Your task to perform on an android device: Empty the shopping cart on bestbuy.com. Add "duracell triple a" to the cart on bestbuy.com Image 0: 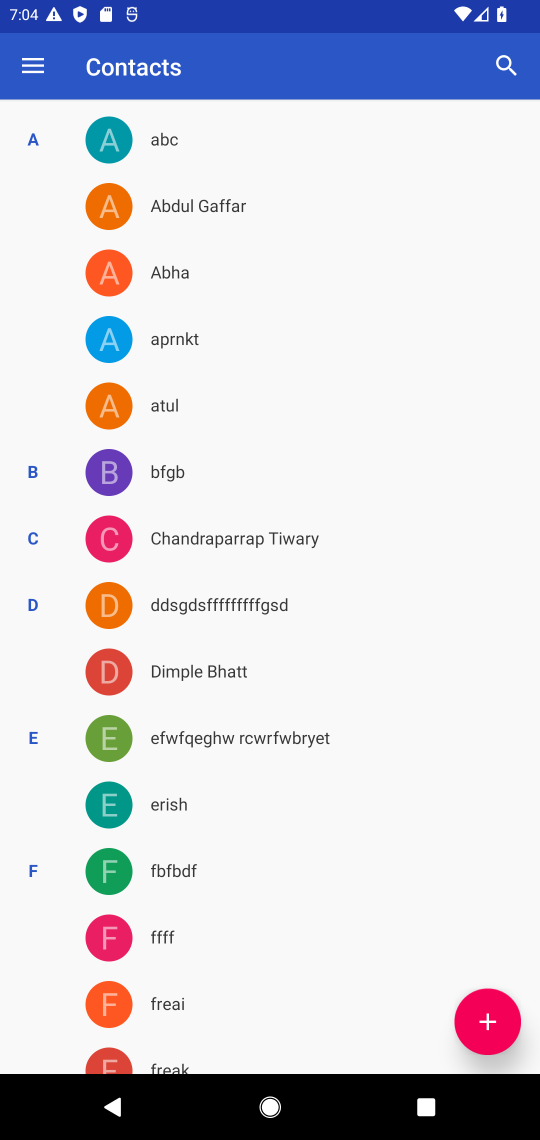
Step 0: press home button
Your task to perform on an android device: Empty the shopping cart on bestbuy.com. Add "duracell triple a" to the cart on bestbuy.com Image 1: 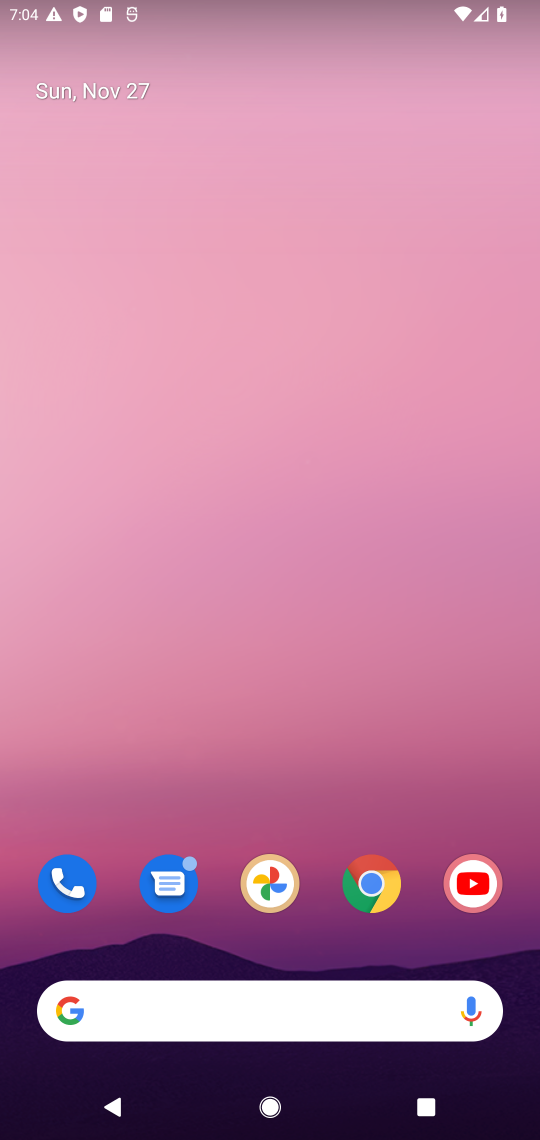
Step 1: click (362, 897)
Your task to perform on an android device: Empty the shopping cart on bestbuy.com. Add "duracell triple a" to the cart on bestbuy.com Image 2: 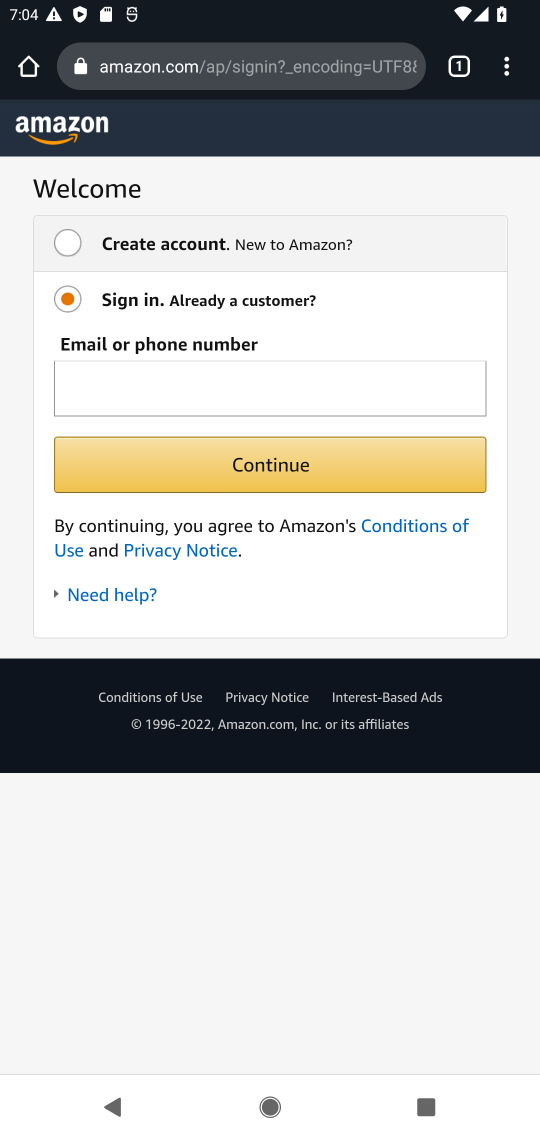
Step 2: click (196, 66)
Your task to perform on an android device: Empty the shopping cart on bestbuy.com. Add "duracell triple a" to the cart on bestbuy.com Image 3: 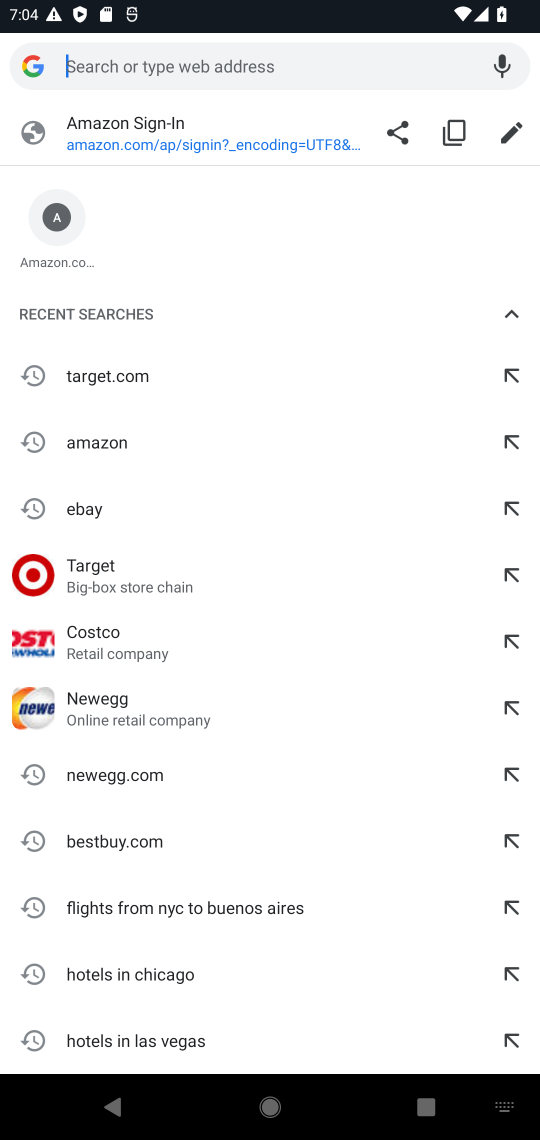
Step 3: type "bestbuy.com"
Your task to perform on an android device: Empty the shopping cart on bestbuy.com. Add "duracell triple a" to the cart on bestbuy.com Image 4: 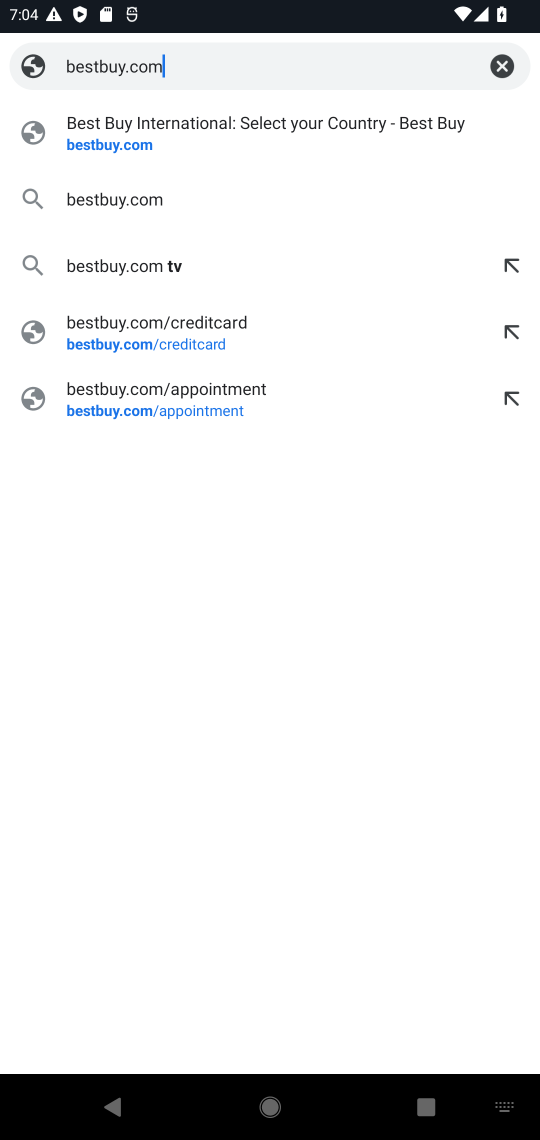
Step 4: click (164, 121)
Your task to perform on an android device: Empty the shopping cart on bestbuy.com. Add "duracell triple a" to the cart on bestbuy.com Image 5: 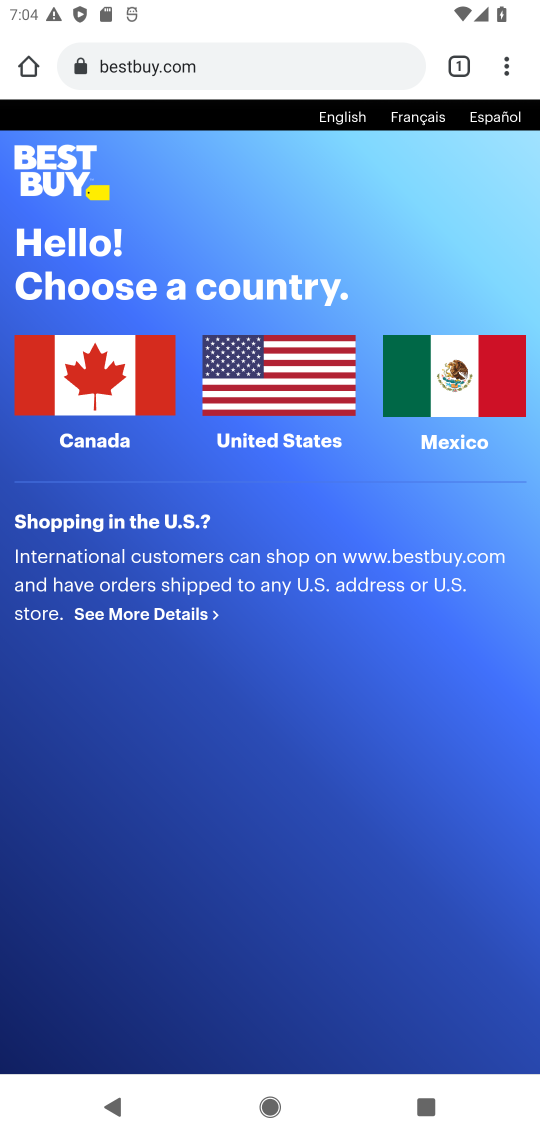
Step 5: click (306, 418)
Your task to perform on an android device: Empty the shopping cart on bestbuy.com. Add "duracell triple a" to the cart on bestbuy.com Image 6: 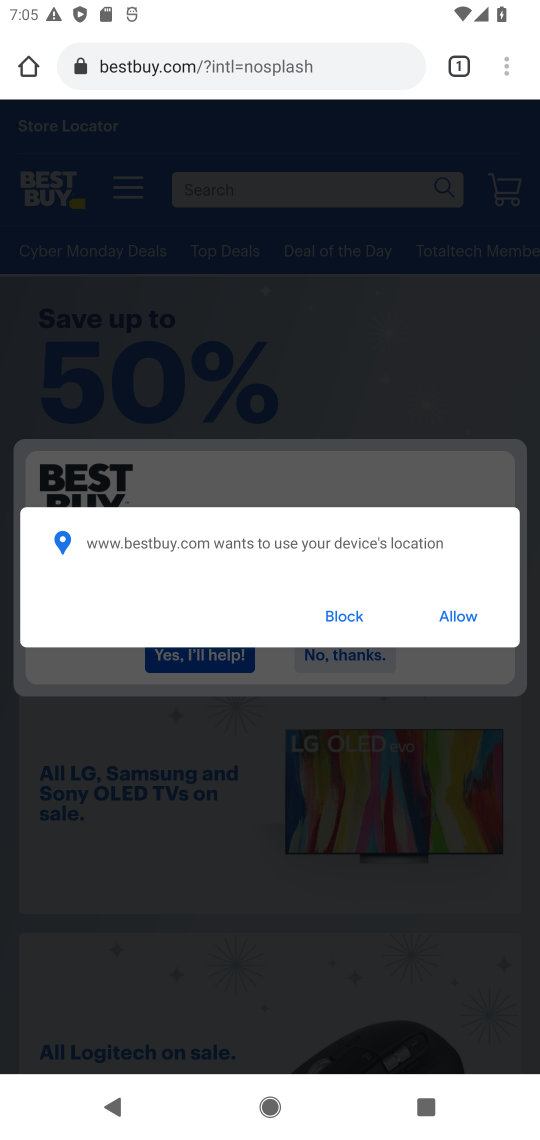
Step 6: click (467, 613)
Your task to perform on an android device: Empty the shopping cart on bestbuy.com. Add "duracell triple a" to the cart on bestbuy.com Image 7: 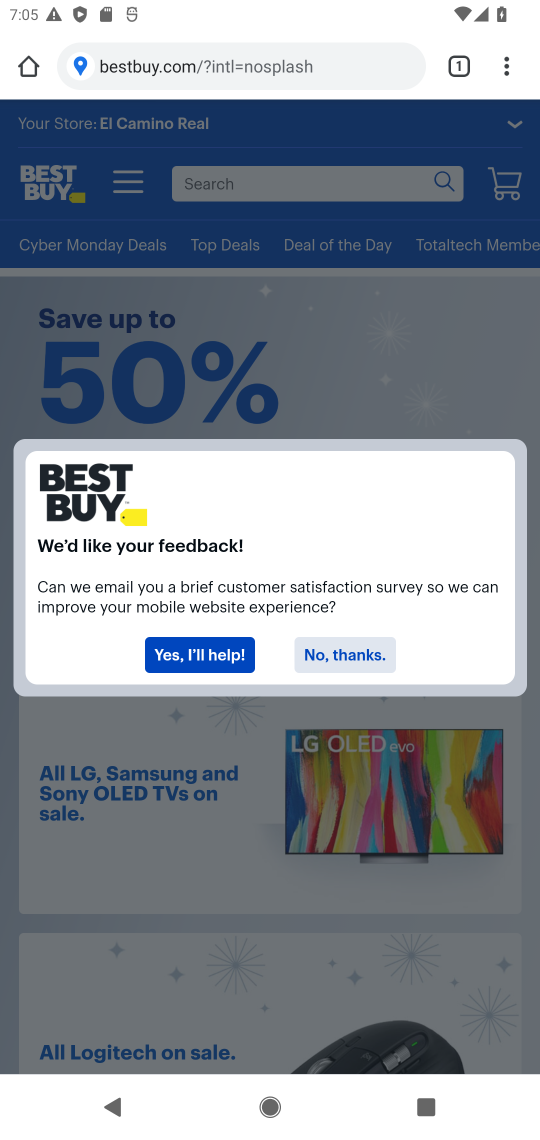
Step 7: click (357, 655)
Your task to perform on an android device: Empty the shopping cart on bestbuy.com. Add "duracell triple a" to the cart on bestbuy.com Image 8: 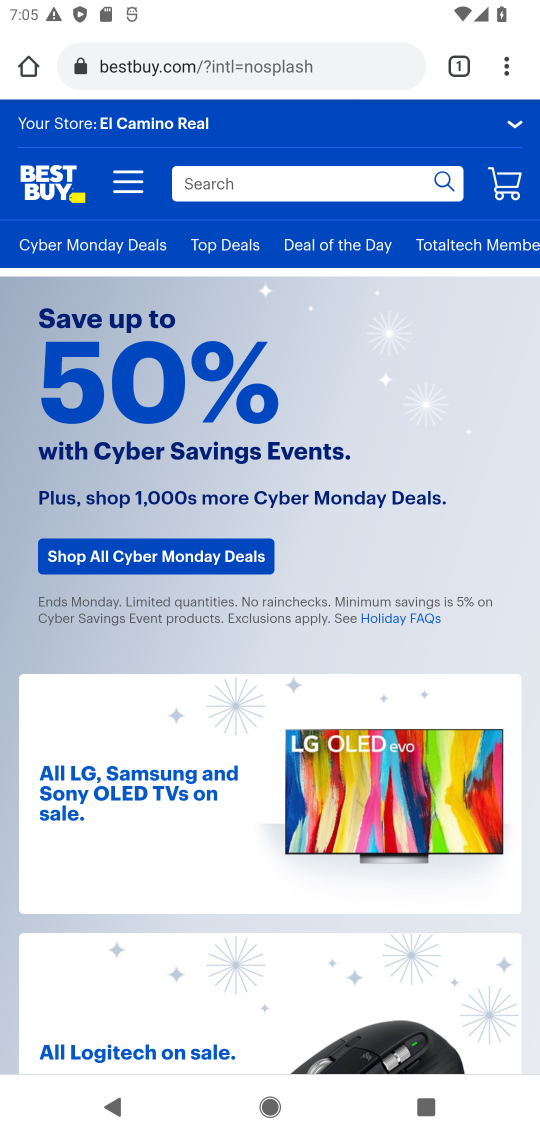
Step 8: click (509, 173)
Your task to perform on an android device: Empty the shopping cart on bestbuy.com. Add "duracell triple a" to the cart on bestbuy.com Image 9: 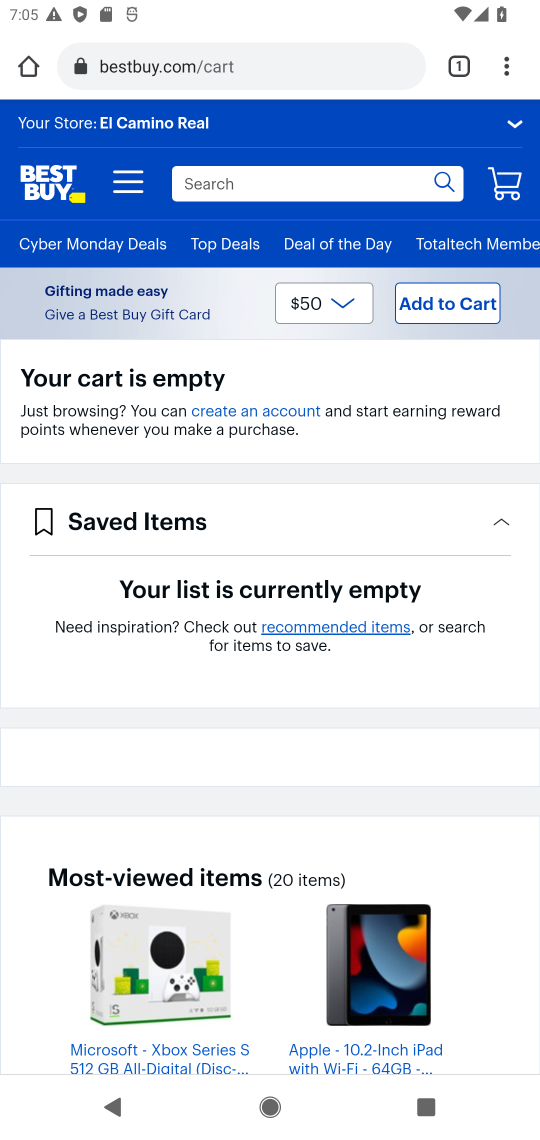
Step 9: click (507, 190)
Your task to perform on an android device: Empty the shopping cart on bestbuy.com. Add "duracell triple a" to the cart on bestbuy.com Image 10: 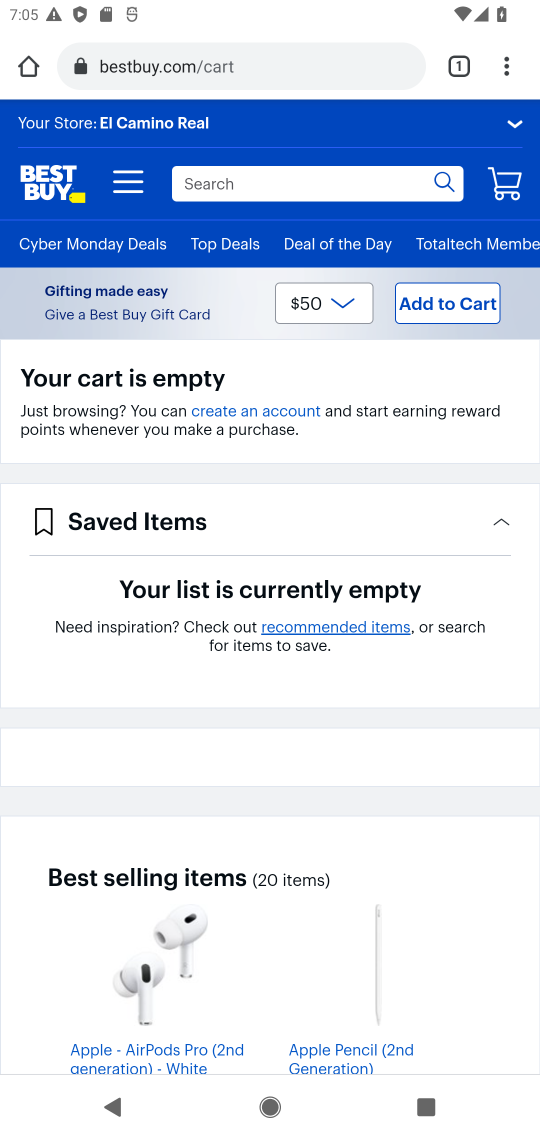
Step 10: click (320, 176)
Your task to perform on an android device: Empty the shopping cart on bestbuy.com. Add "duracell triple a" to the cart on bestbuy.com Image 11: 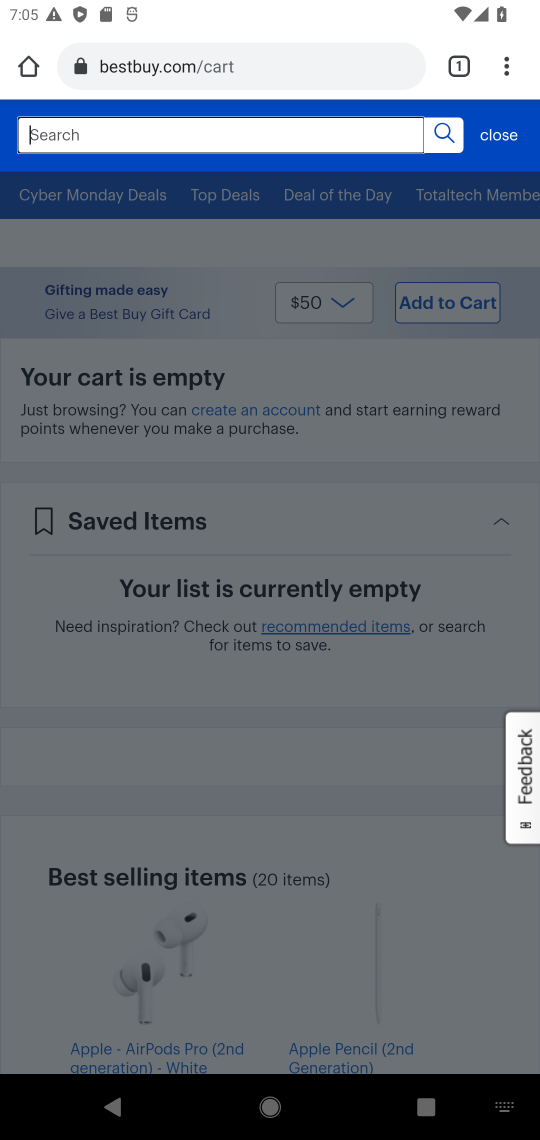
Step 11: type "duracell triple a "
Your task to perform on an android device: Empty the shopping cart on bestbuy.com. Add "duracell triple a" to the cart on bestbuy.com Image 12: 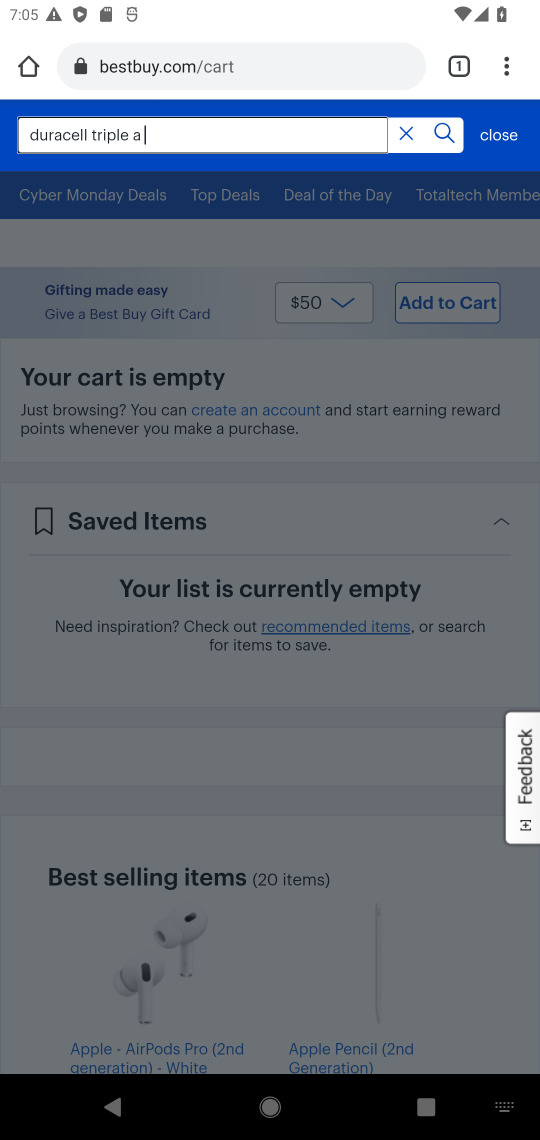
Step 12: click (454, 140)
Your task to perform on an android device: Empty the shopping cart on bestbuy.com. Add "duracell triple a" to the cart on bestbuy.com Image 13: 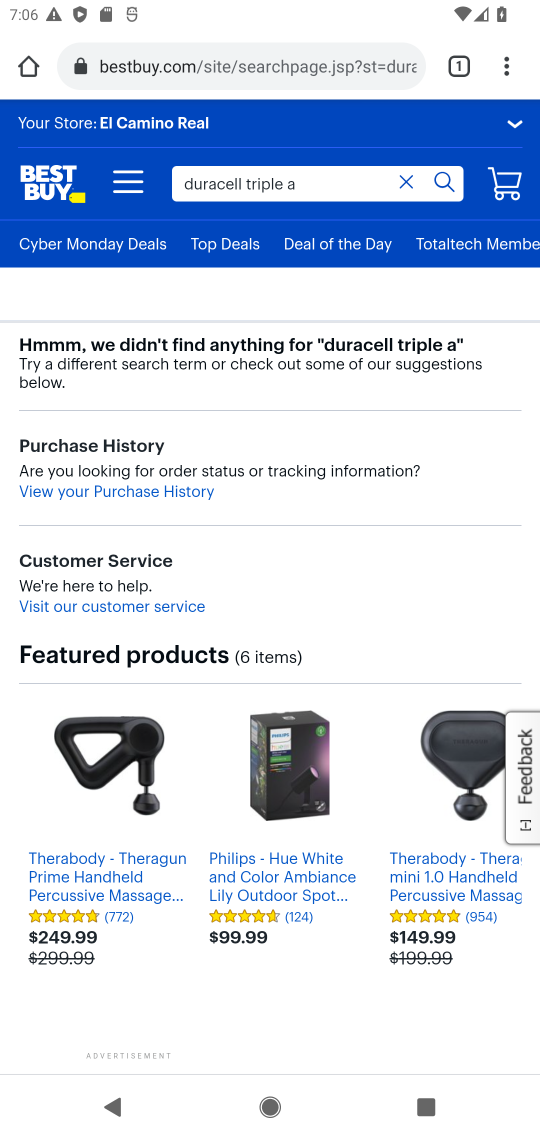
Step 13: task complete